Your task to perform on an android device: Go to notification settings Image 0: 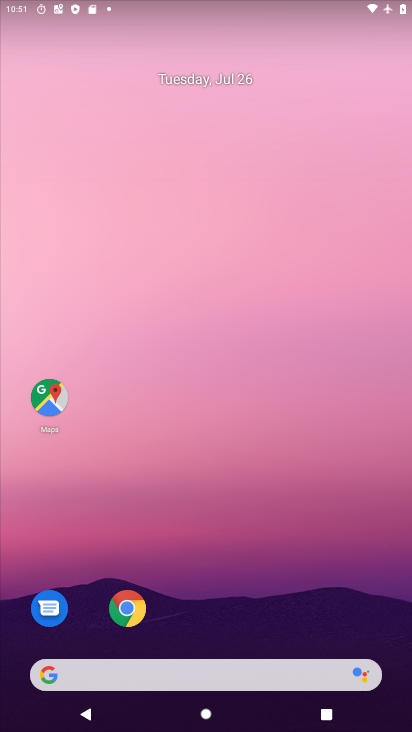
Step 0: drag from (206, 614) to (220, 50)
Your task to perform on an android device: Go to notification settings Image 1: 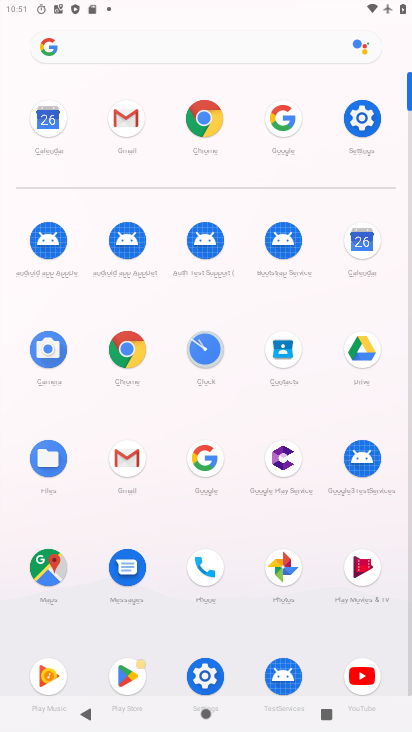
Step 1: click (356, 117)
Your task to perform on an android device: Go to notification settings Image 2: 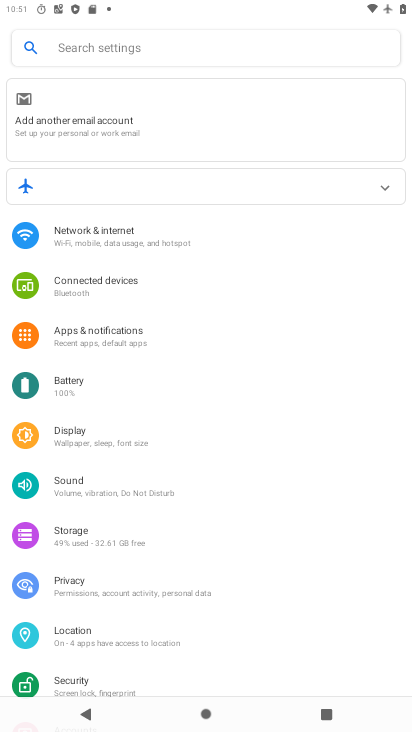
Step 2: click (157, 343)
Your task to perform on an android device: Go to notification settings Image 3: 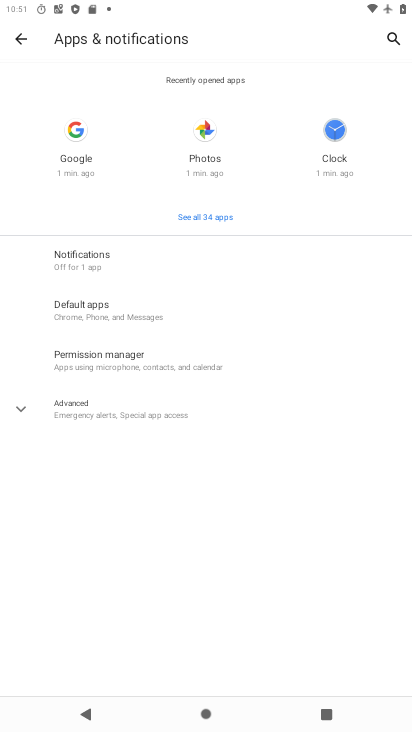
Step 3: click (77, 260)
Your task to perform on an android device: Go to notification settings Image 4: 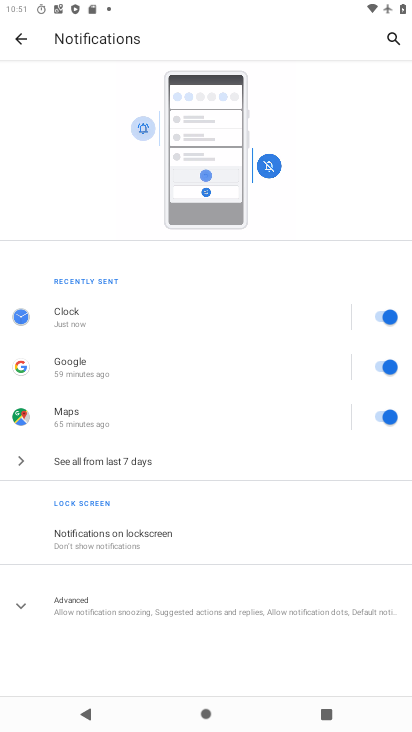
Step 4: task complete